Your task to perform on an android device: change keyboard looks Image 0: 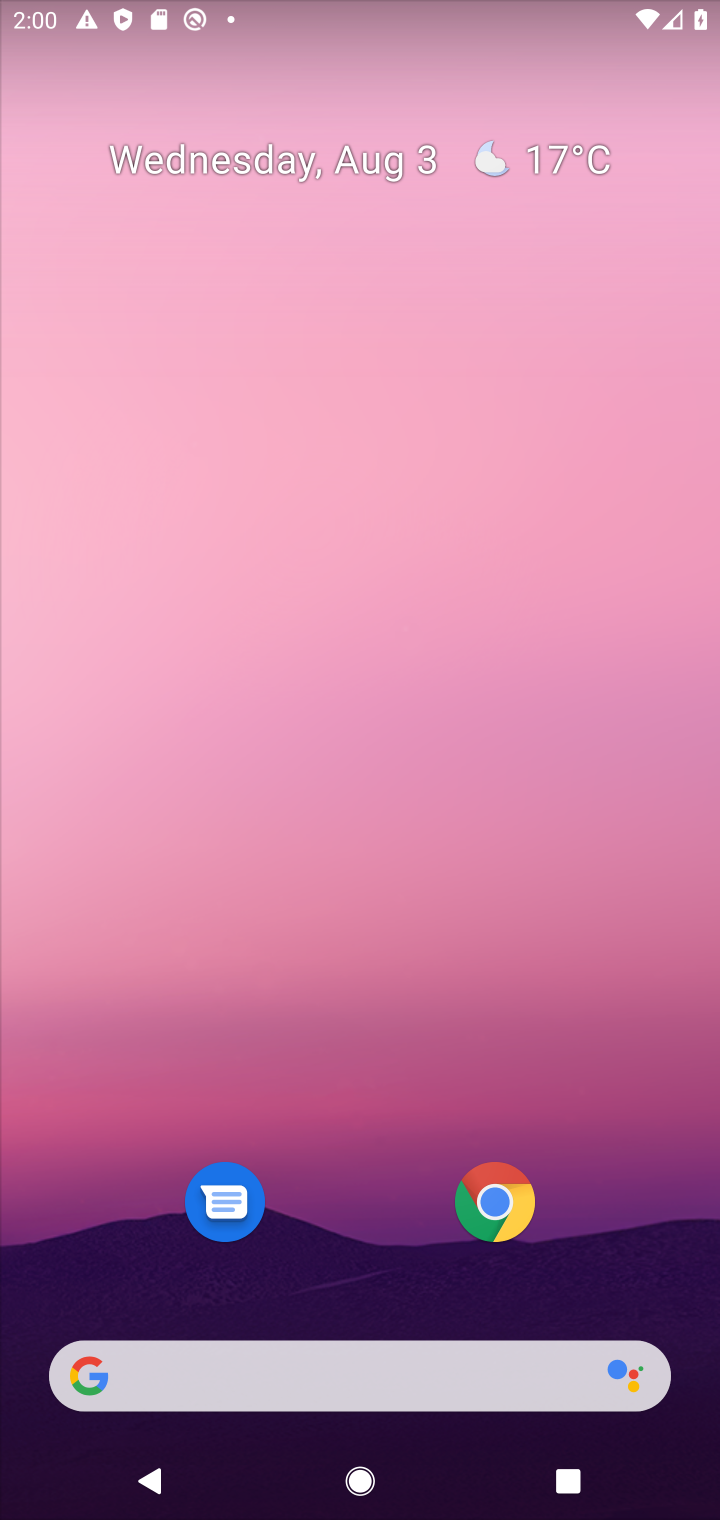
Step 0: drag from (312, 1280) to (390, 223)
Your task to perform on an android device: change keyboard looks Image 1: 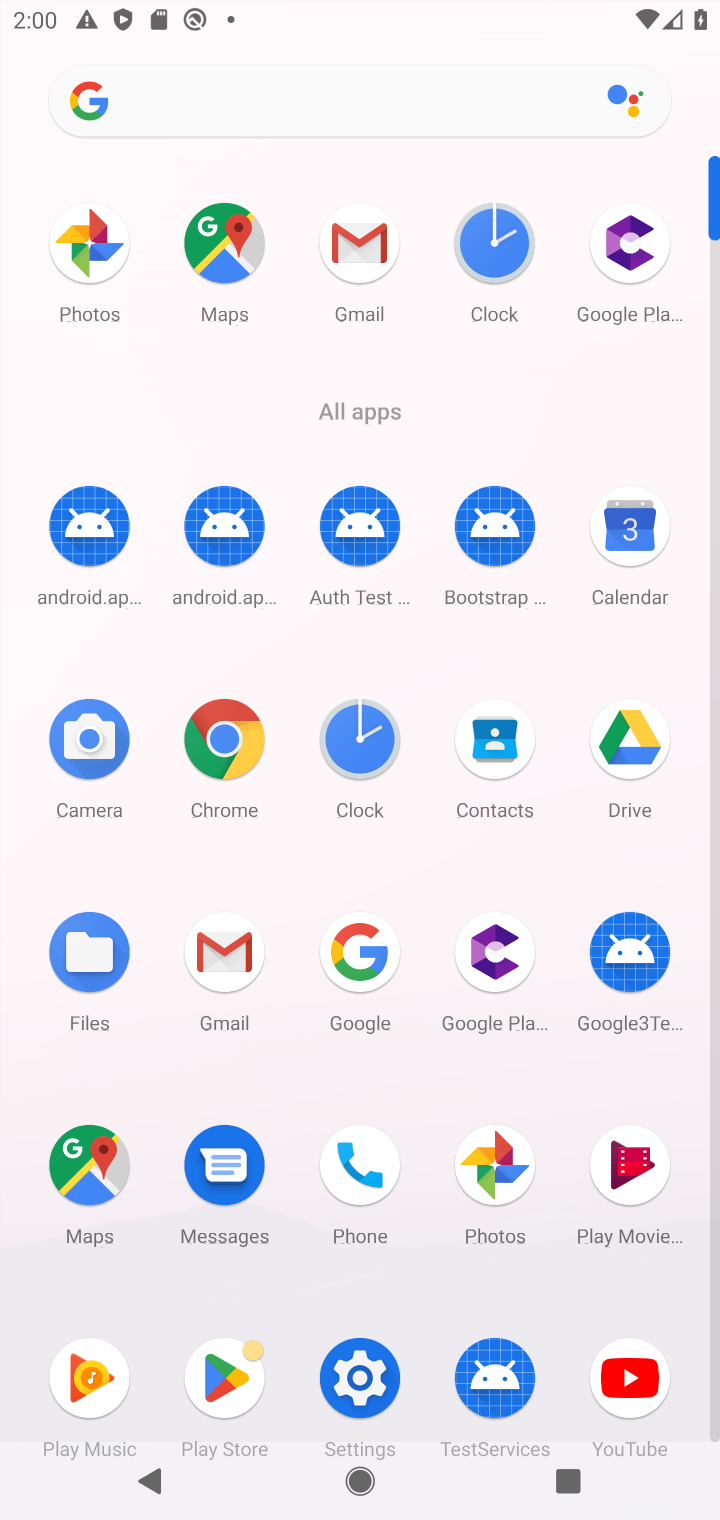
Step 1: click (348, 1391)
Your task to perform on an android device: change keyboard looks Image 2: 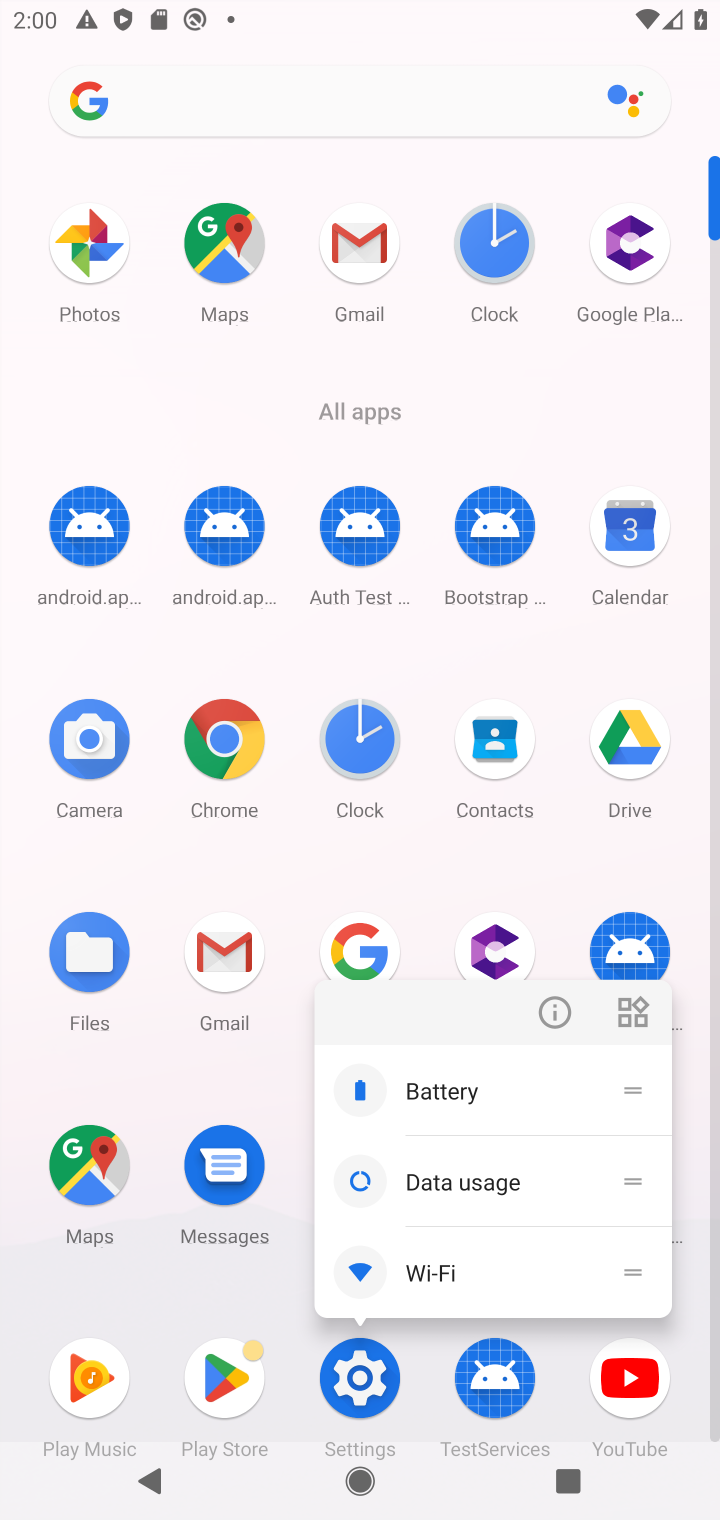
Step 2: click (369, 1368)
Your task to perform on an android device: change keyboard looks Image 3: 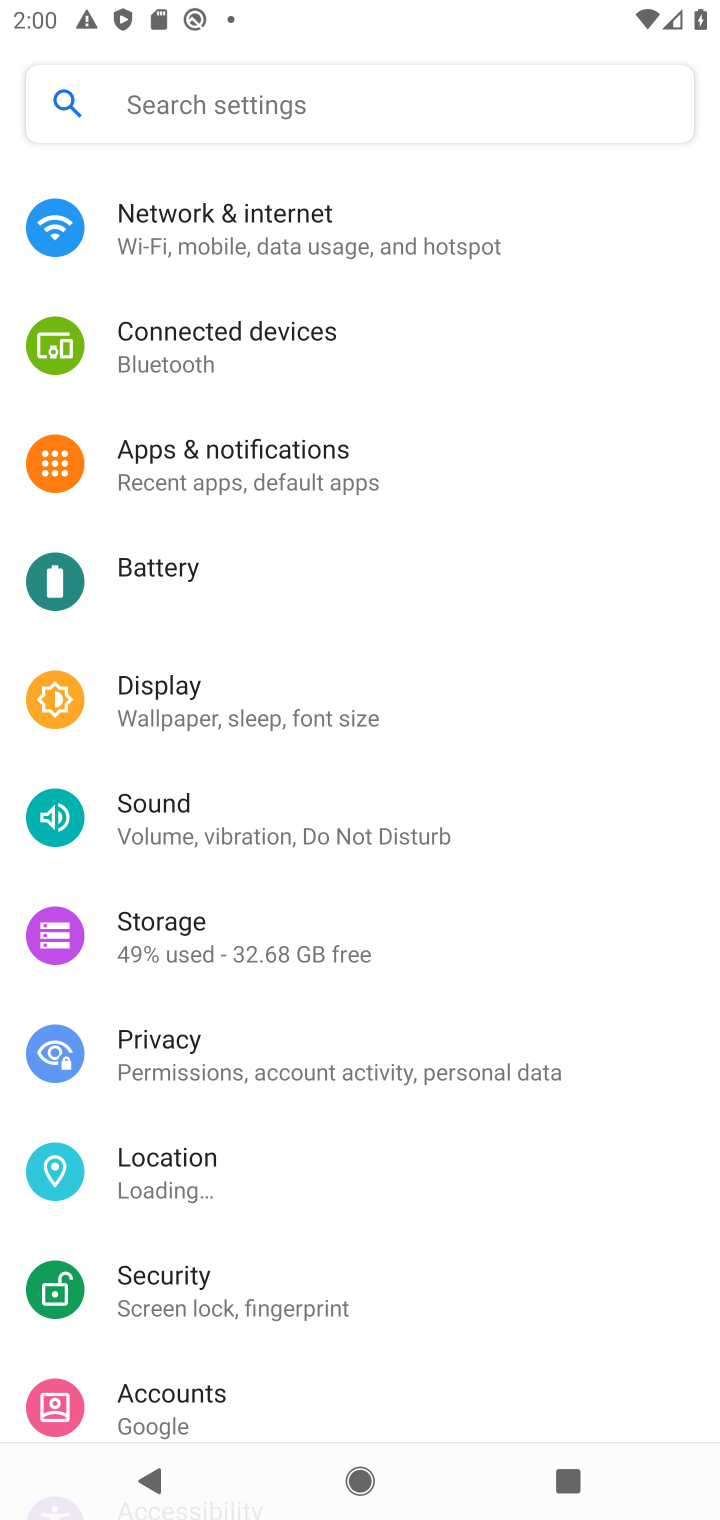
Step 3: click (359, 1364)
Your task to perform on an android device: change keyboard looks Image 4: 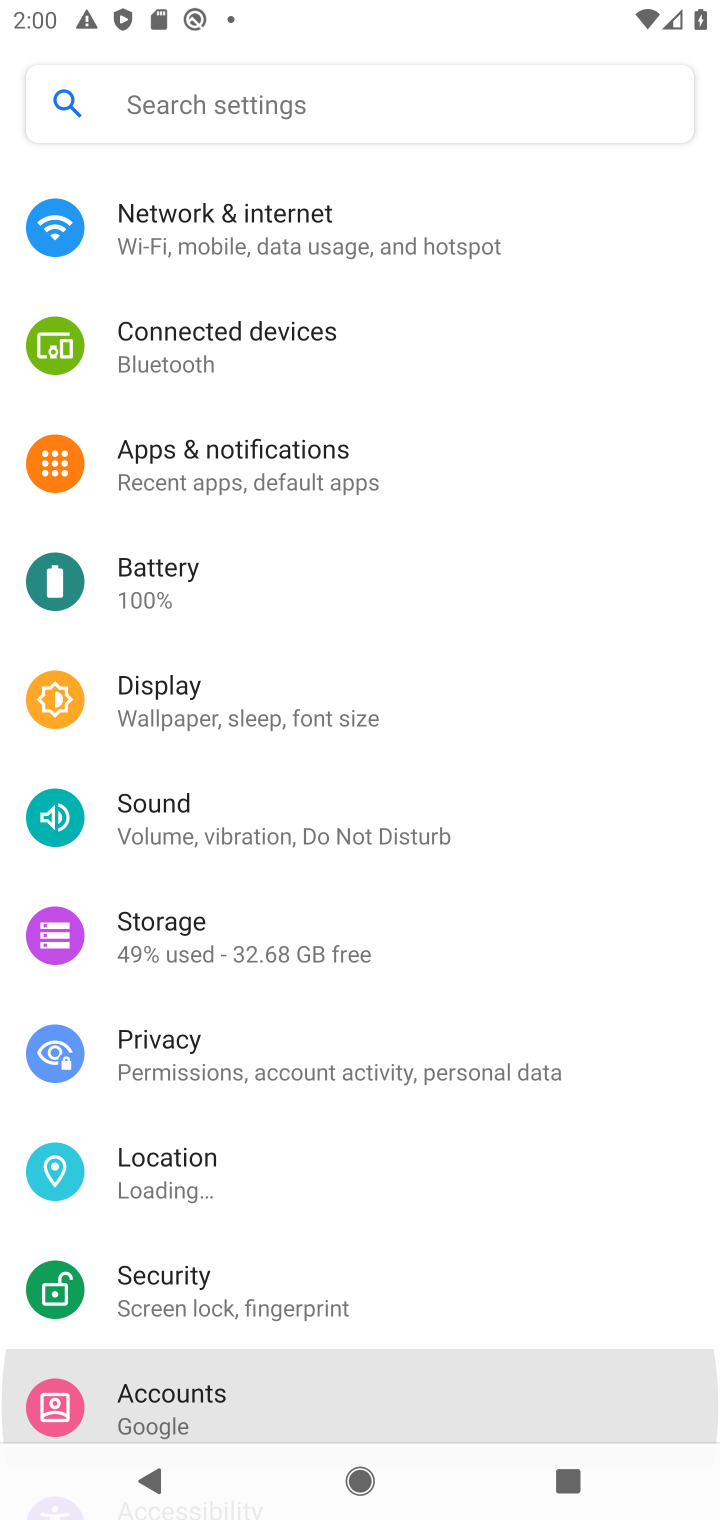
Step 4: drag from (365, 1351) to (447, 75)
Your task to perform on an android device: change keyboard looks Image 5: 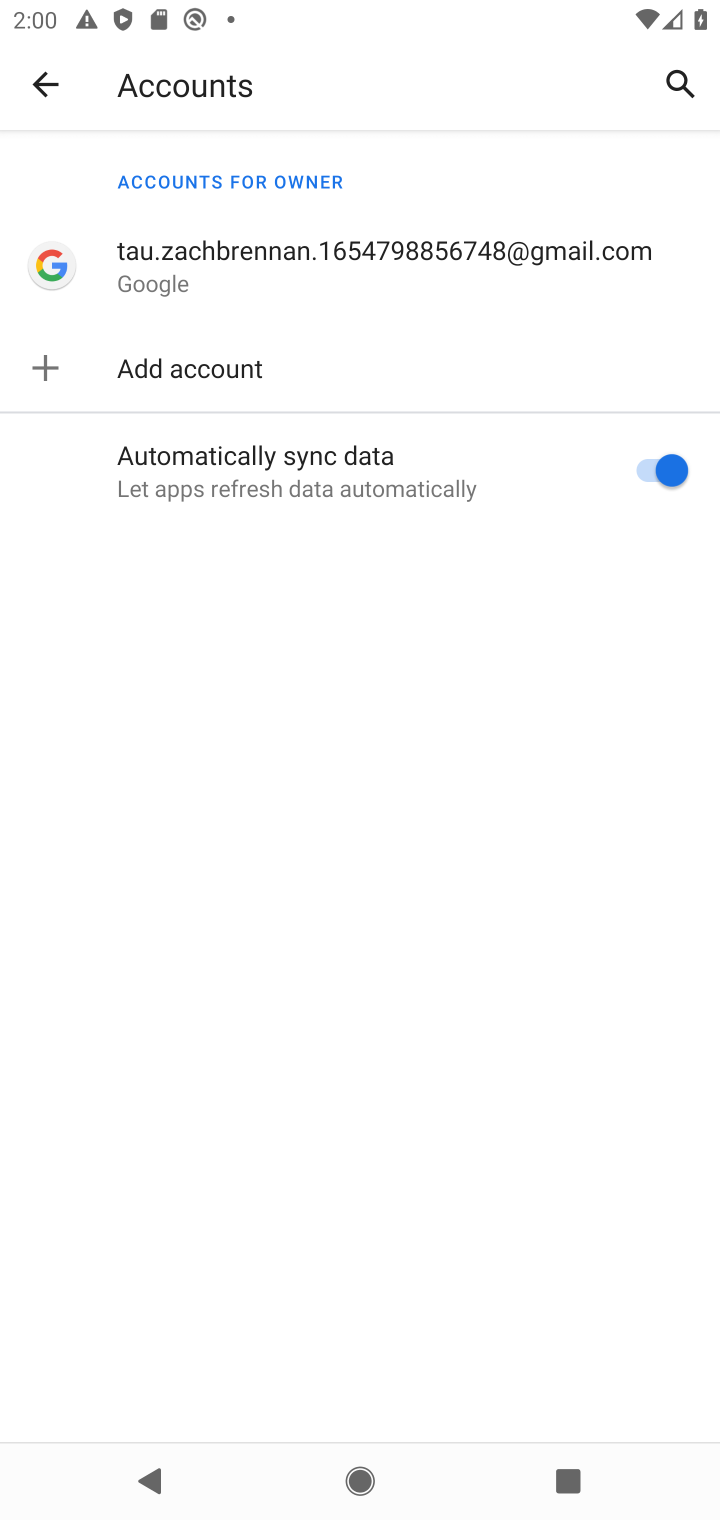
Step 5: click (37, 69)
Your task to perform on an android device: change keyboard looks Image 6: 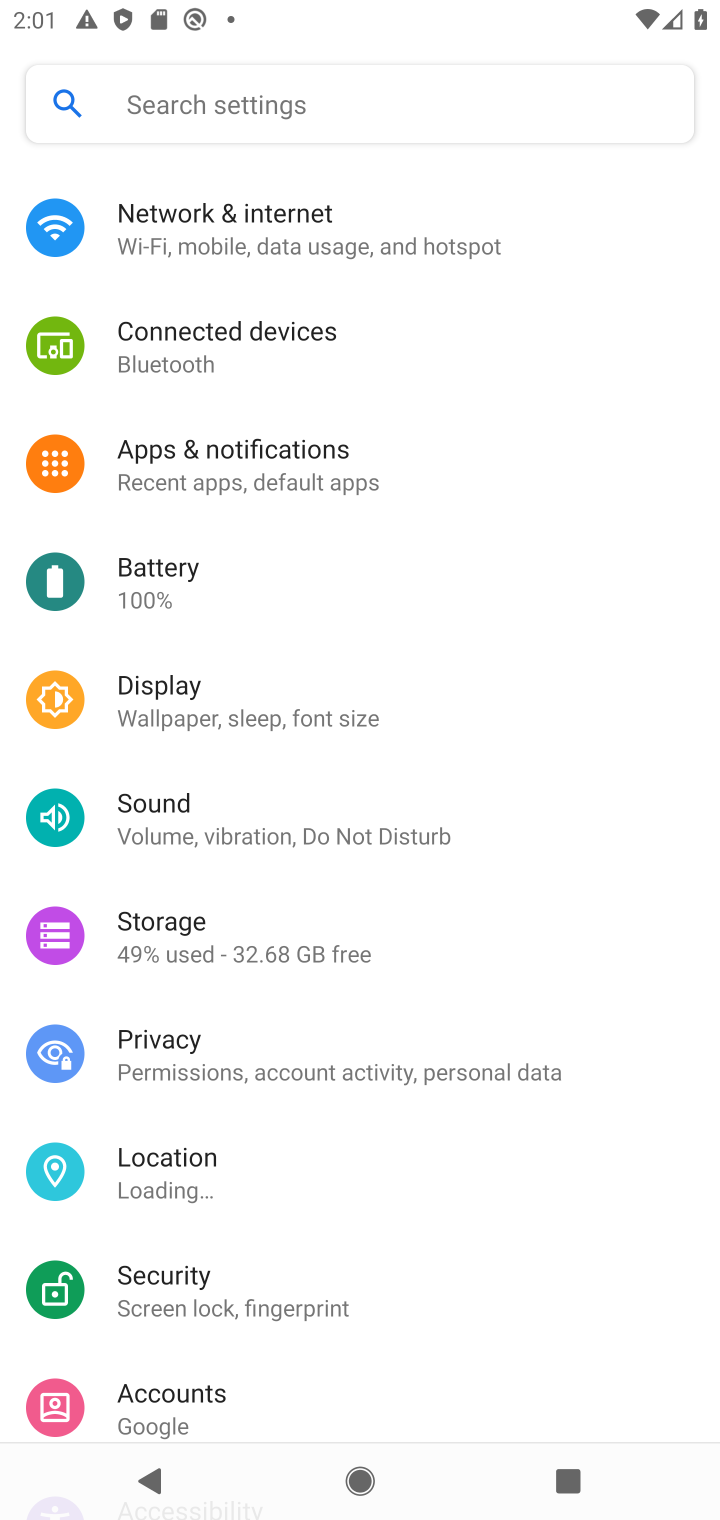
Step 6: drag from (279, 1291) to (456, 4)
Your task to perform on an android device: change keyboard looks Image 7: 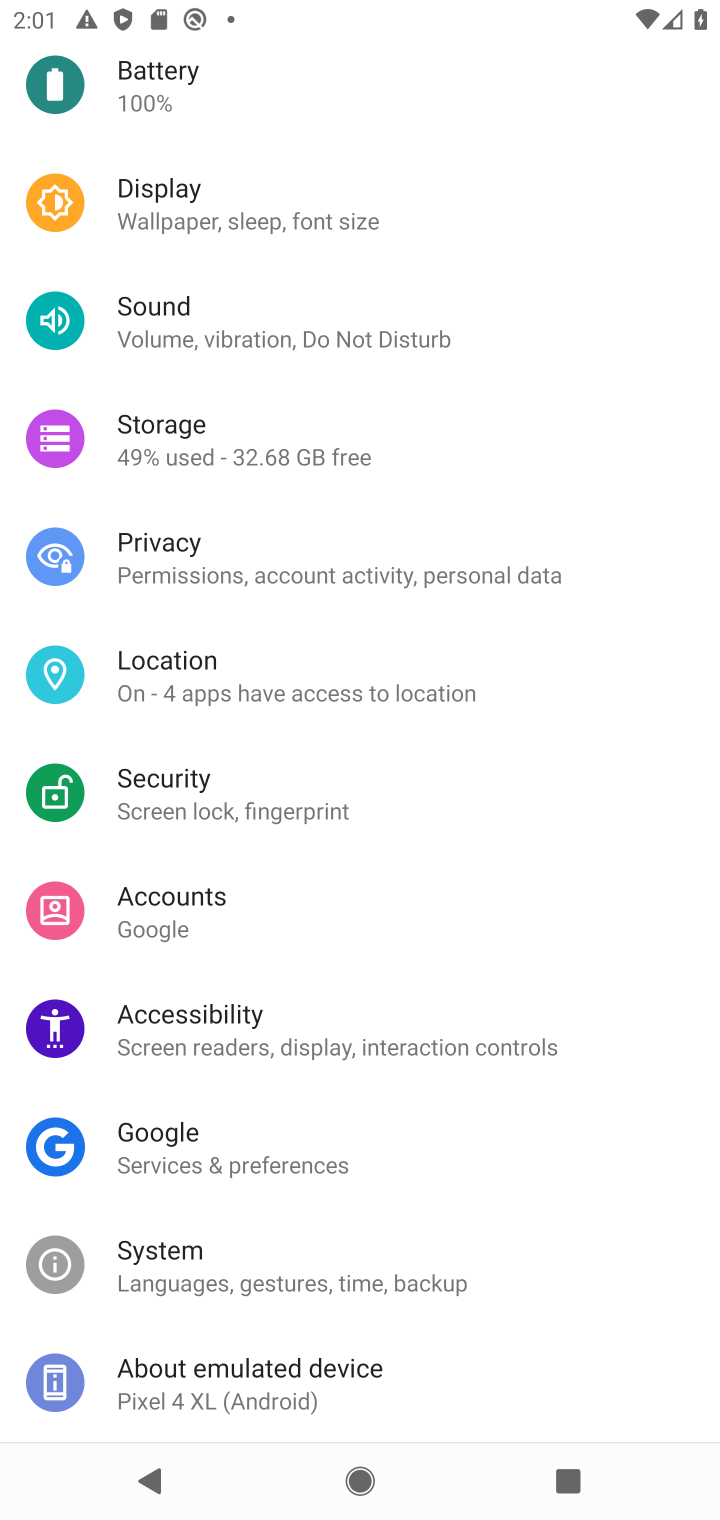
Step 7: drag from (435, 1326) to (485, 52)
Your task to perform on an android device: change keyboard looks Image 8: 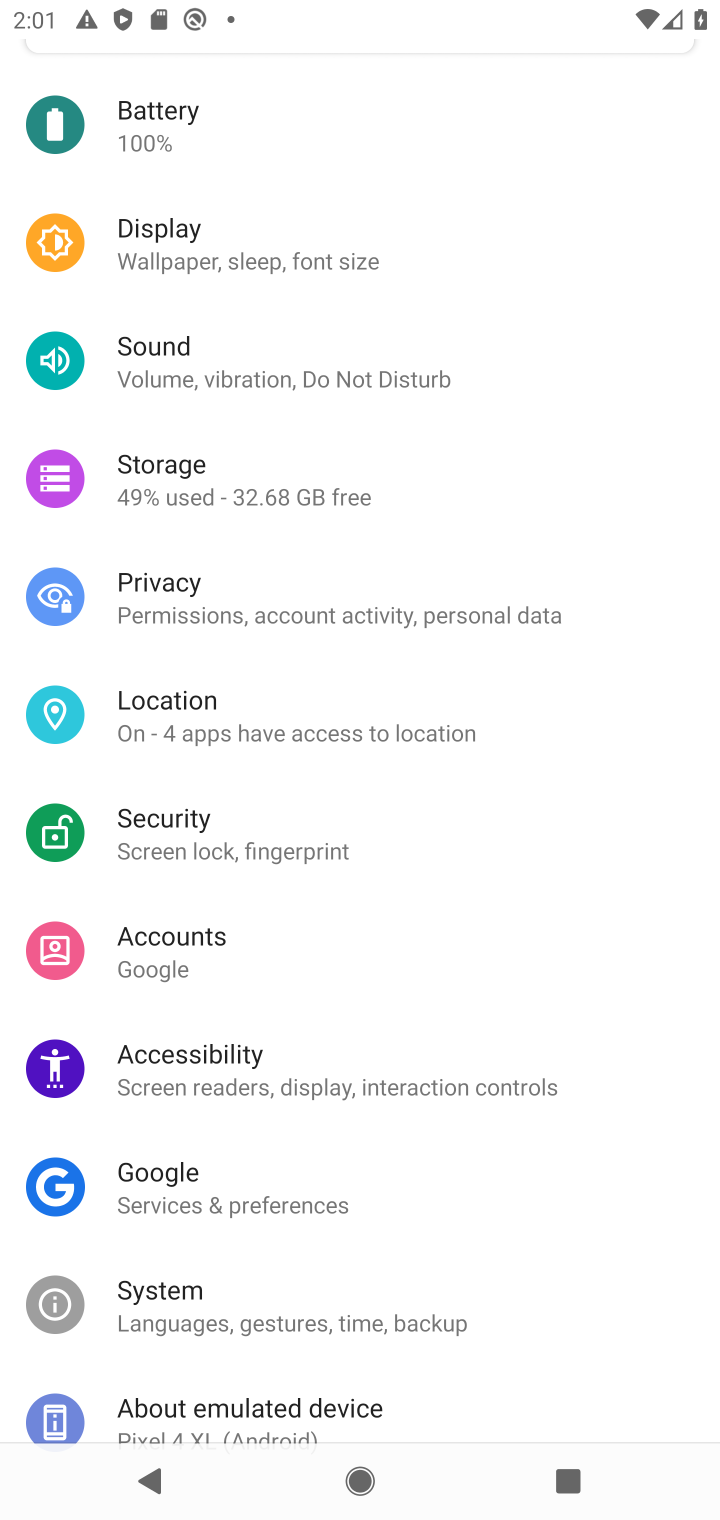
Step 8: click (235, 1323)
Your task to perform on an android device: change keyboard looks Image 9: 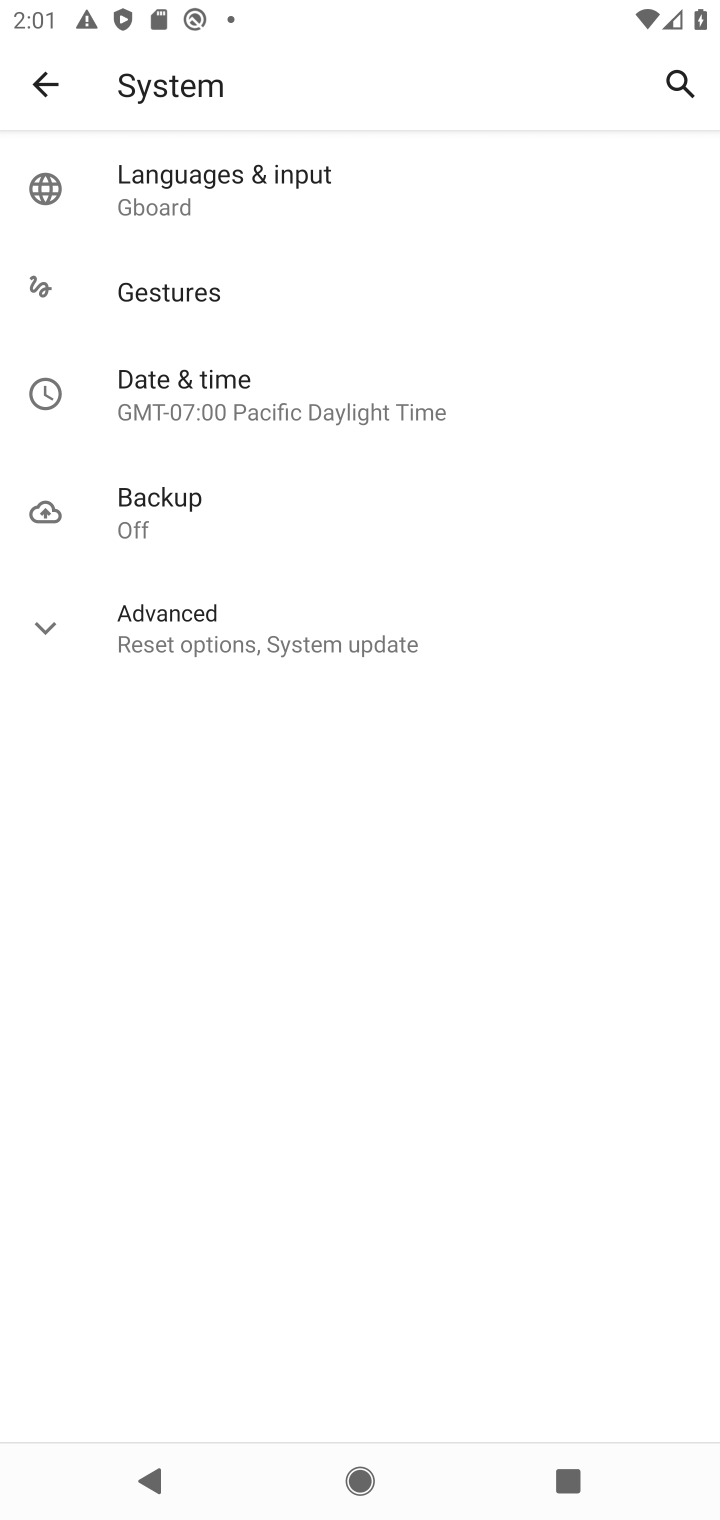
Step 9: click (231, 194)
Your task to perform on an android device: change keyboard looks Image 10: 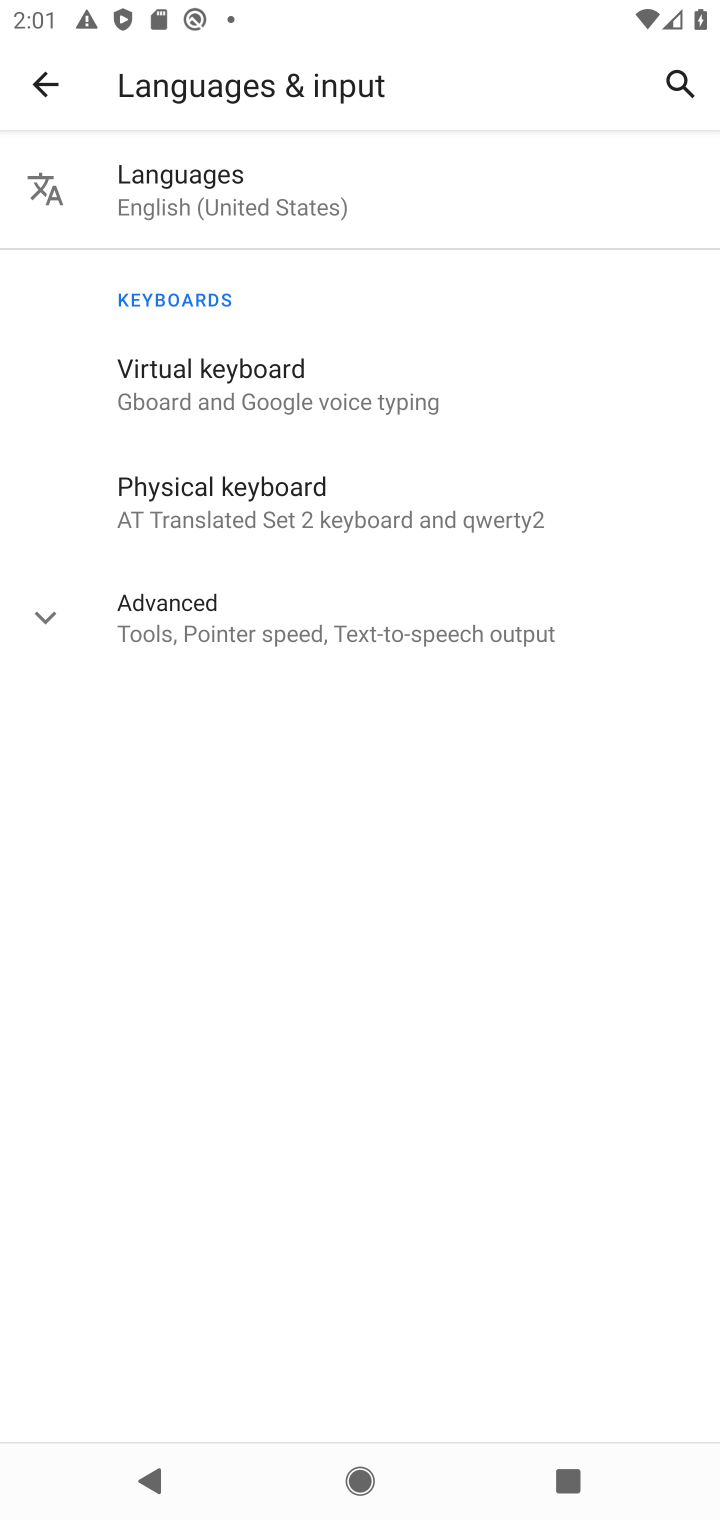
Step 10: click (228, 374)
Your task to perform on an android device: change keyboard looks Image 11: 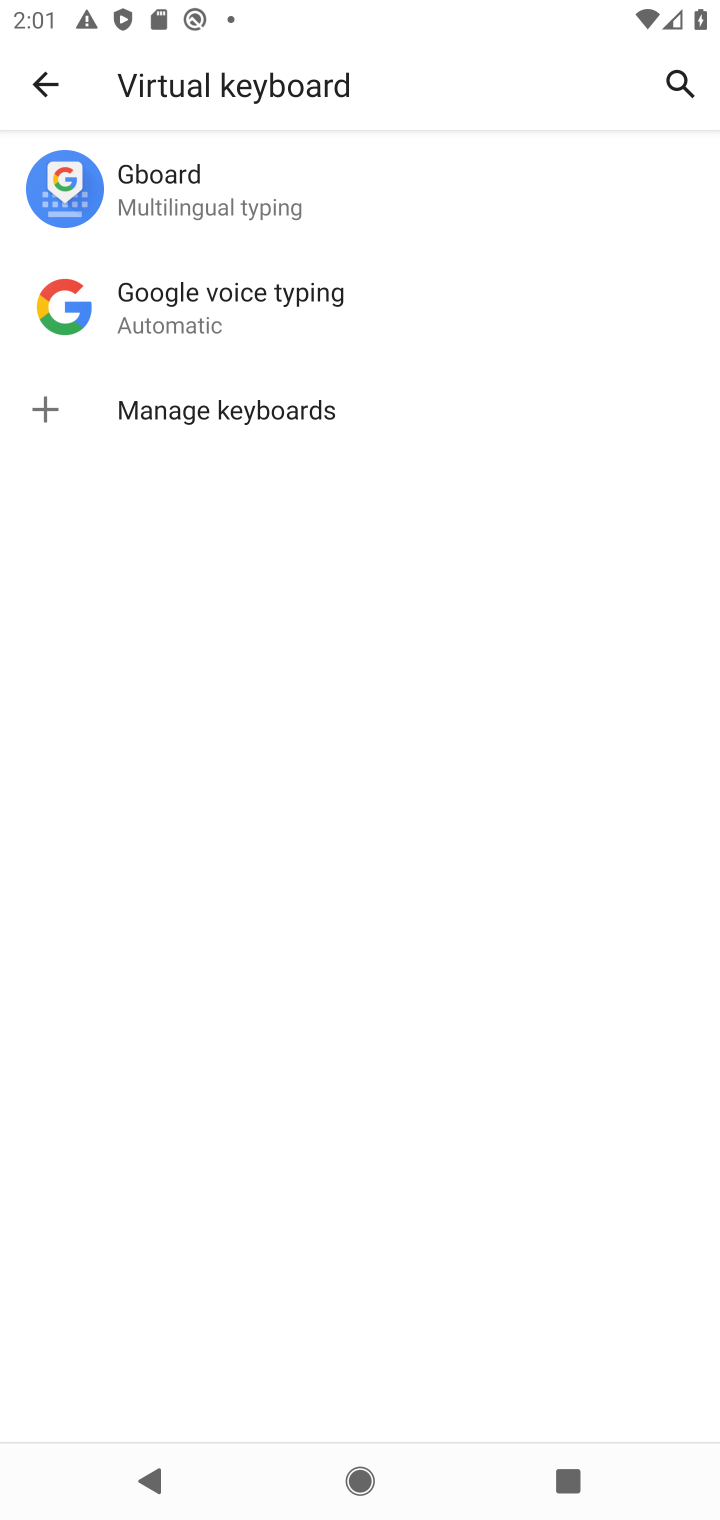
Step 11: click (200, 188)
Your task to perform on an android device: change keyboard looks Image 12: 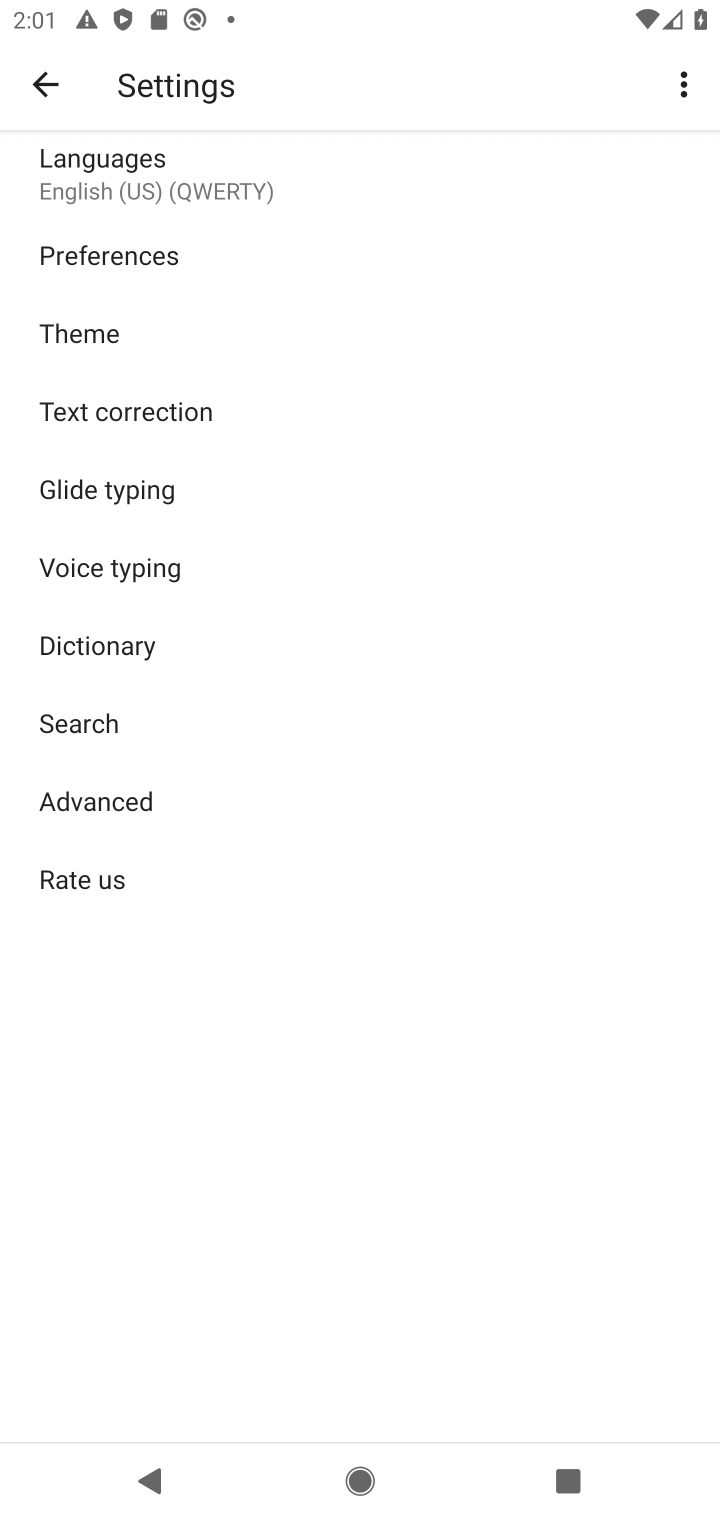
Step 12: click (89, 309)
Your task to perform on an android device: change keyboard looks Image 13: 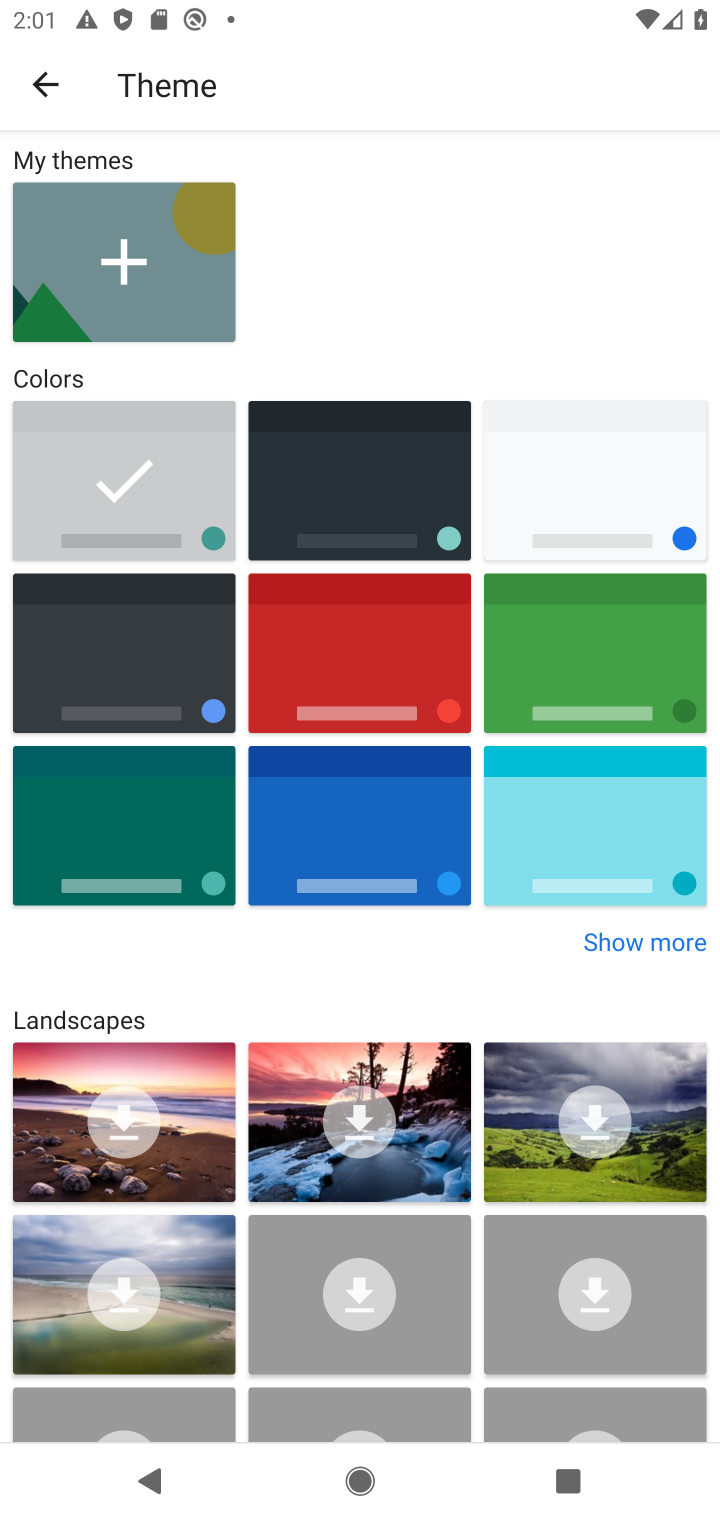
Step 13: click (377, 700)
Your task to perform on an android device: change keyboard looks Image 14: 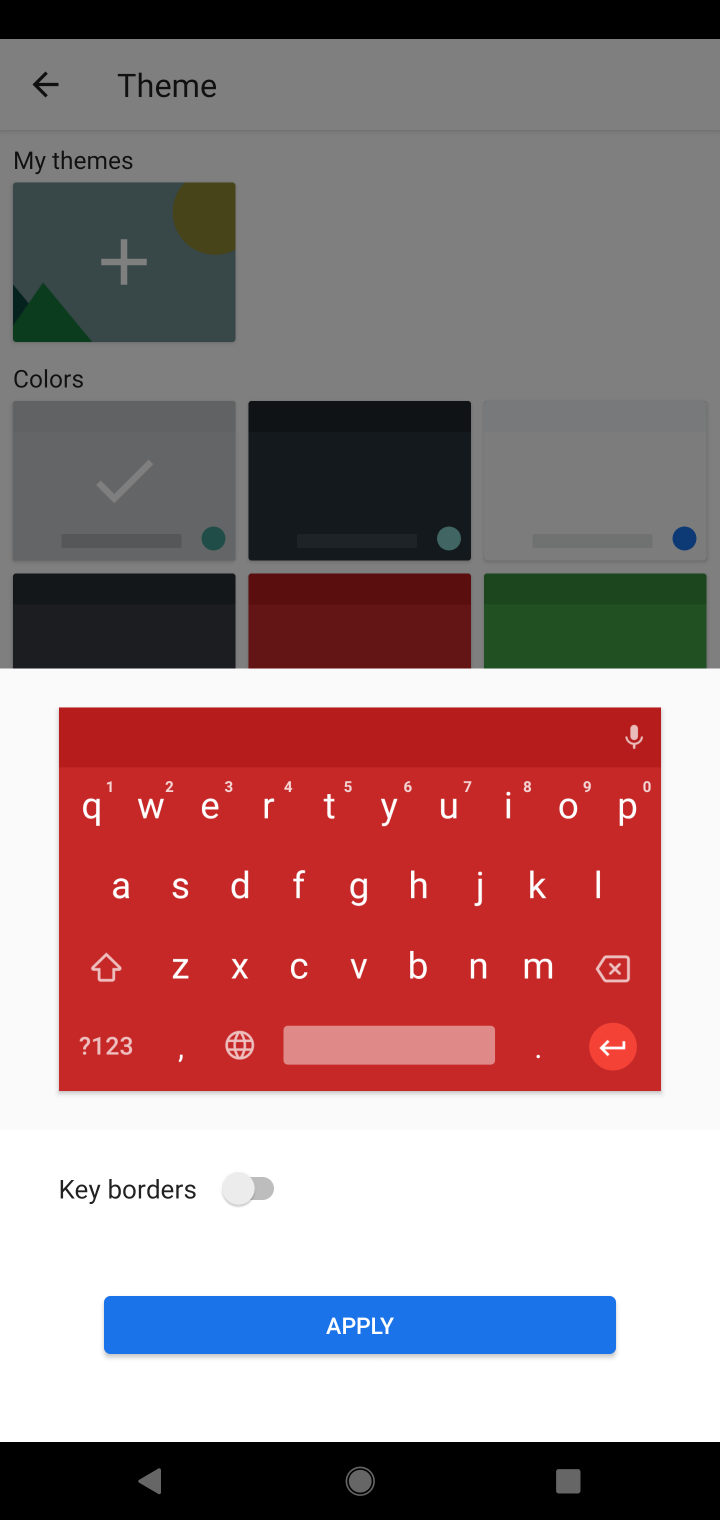
Step 14: click (274, 1345)
Your task to perform on an android device: change keyboard looks Image 15: 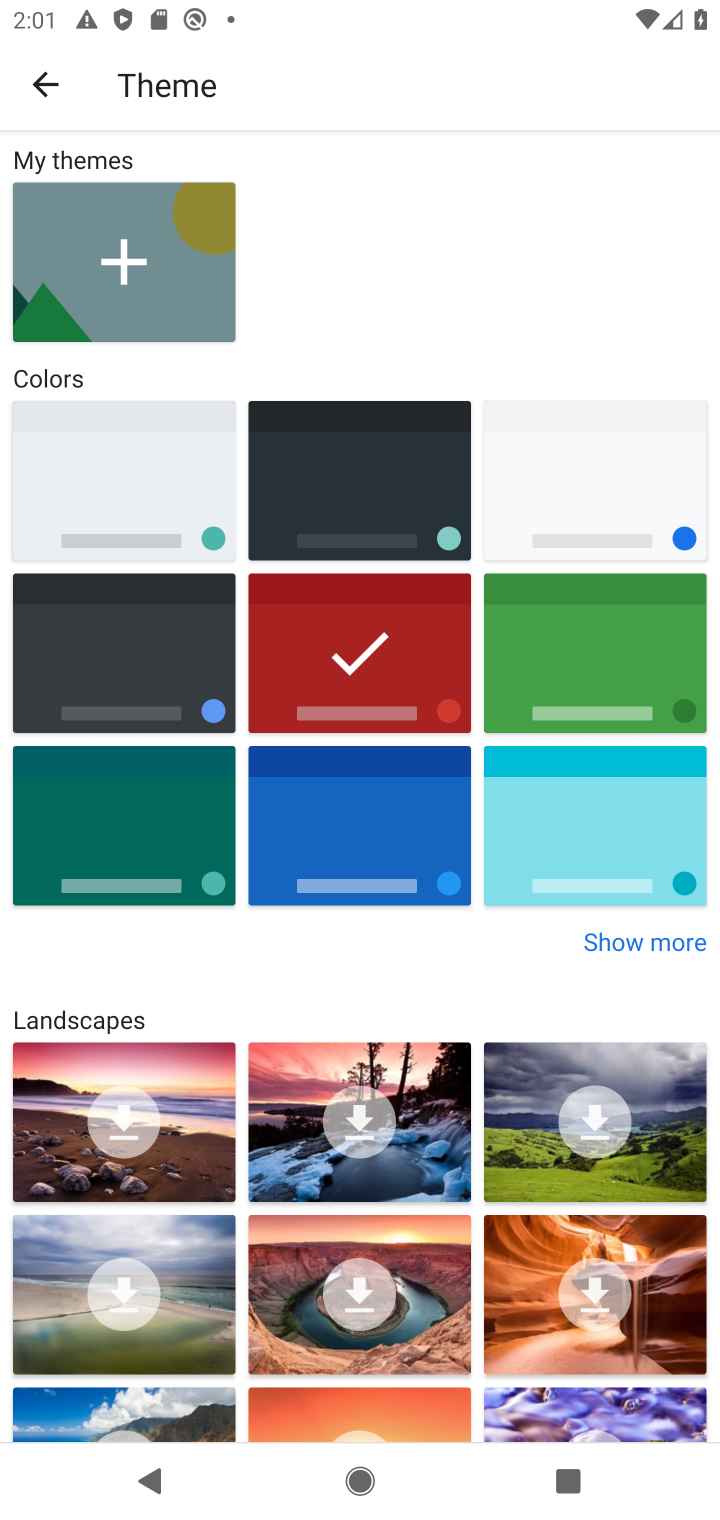
Step 15: task complete